Your task to perform on an android device: Open the map Image 0: 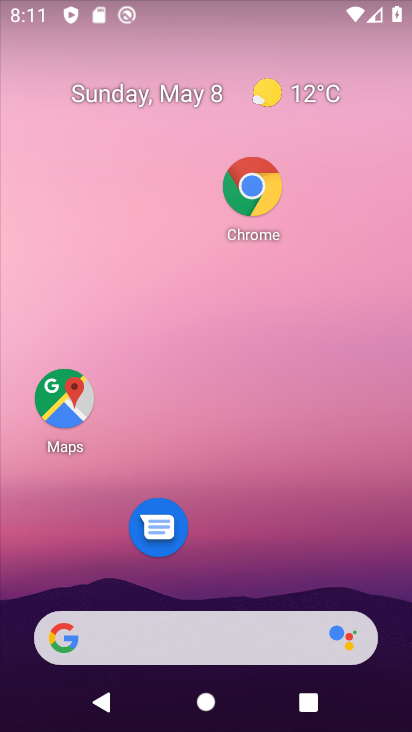
Step 0: drag from (319, 440) to (316, 251)
Your task to perform on an android device: Open the map Image 1: 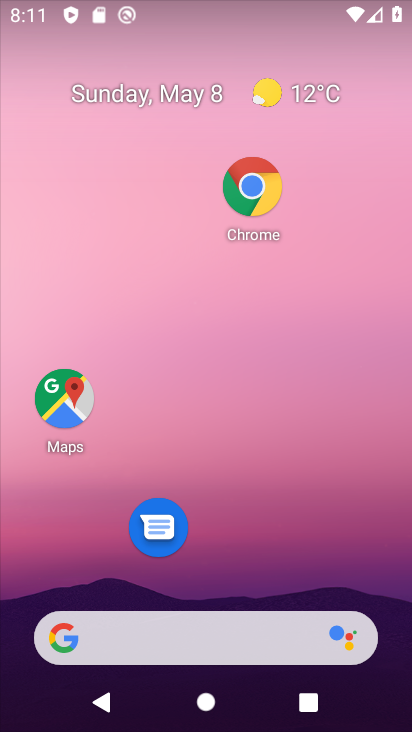
Step 1: drag from (226, 552) to (224, 240)
Your task to perform on an android device: Open the map Image 2: 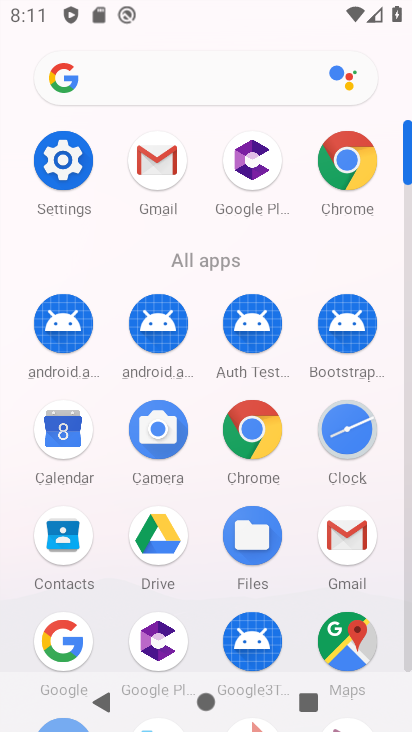
Step 2: click (341, 636)
Your task to perform on an android device: Open the map Image 3: 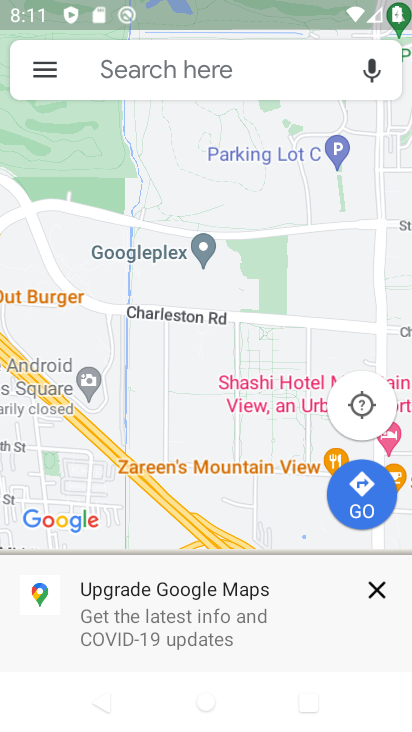
Step 3: click (380, 591)
Your task to perform on an android device: Open the map Image 4: 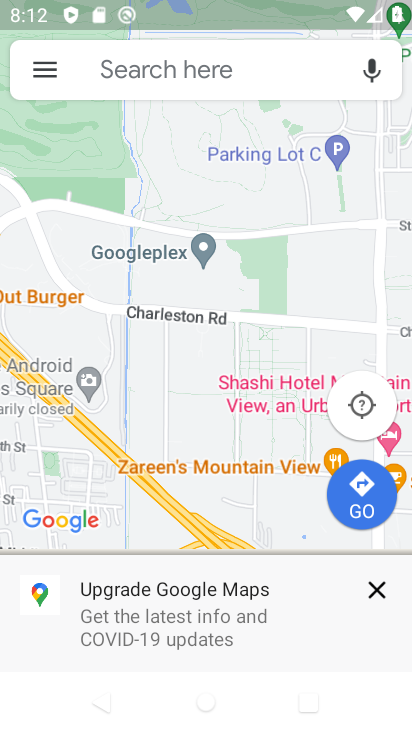
Step 4: click (369, 585)
Your task to perform on an android device: Open the map Image 5: 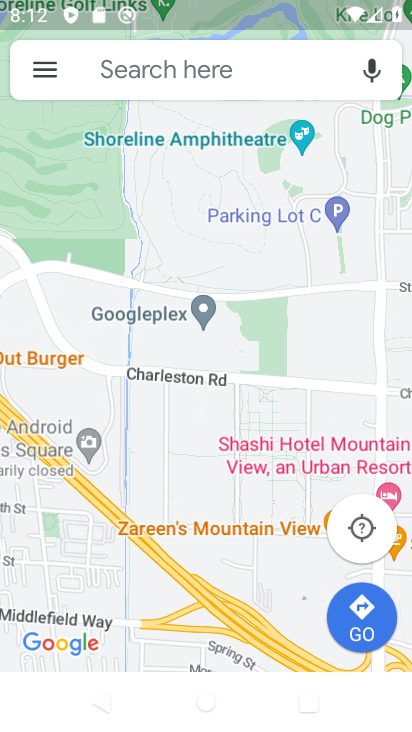
Step 5: task complete